Your task to perform on an android device: toggle notification dots Image 0: 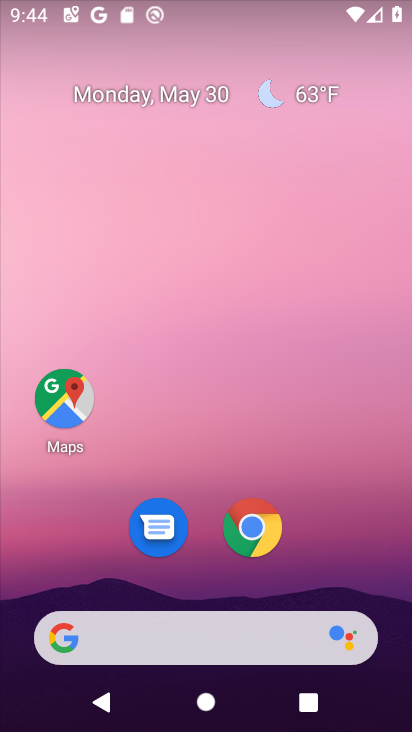
Step 0: drag from (342, 581) to (292, 286)
Your task to perform on an android device: toggle notification dots Image 1: 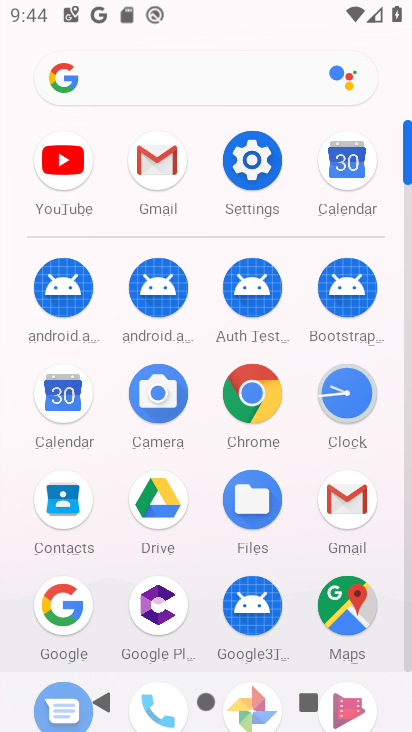
Step 1: click (258, 144)
Your task to perform on an android device: toggle notification dots Image 2: 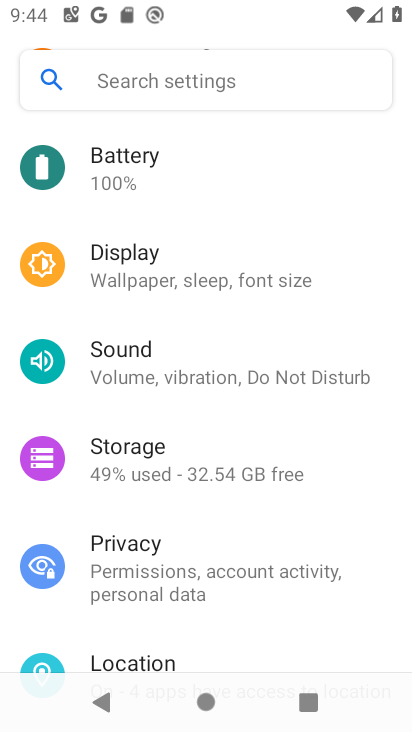
Step 2: click (211, 70)
Your task to perform on an android device: toggle notification dots Image 3: 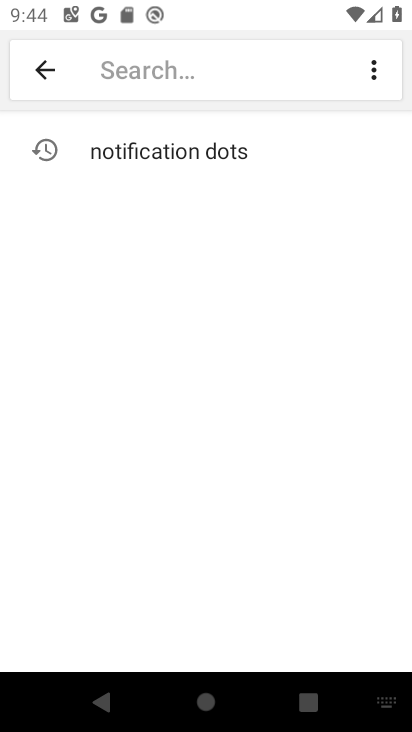
Step 3: click (163, 146)
Your task to perform on an android device: toggle notification dots Image 4: 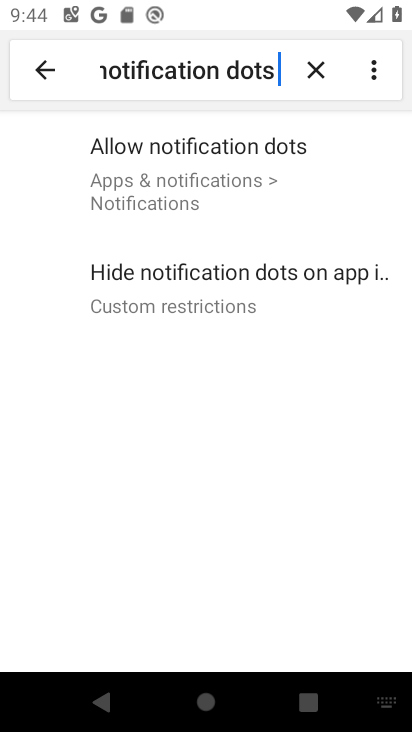
Step 4: click (273, 178)
Your task to perform on an android device: toggle notification dots Image 5: 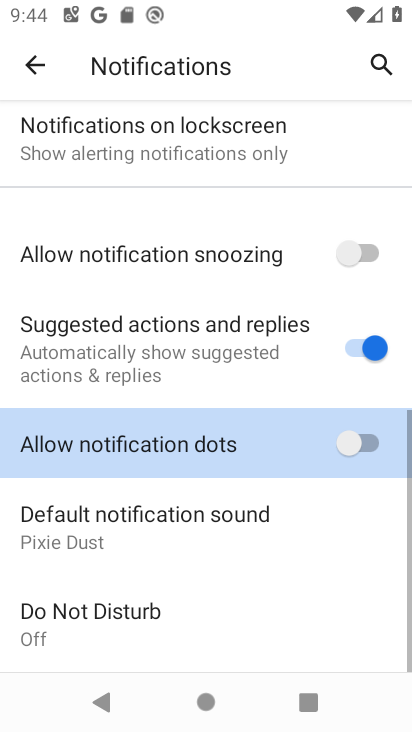
Step 5: click (368, 449)
Your task to perform on an android device: toggle notification dots Image 6: 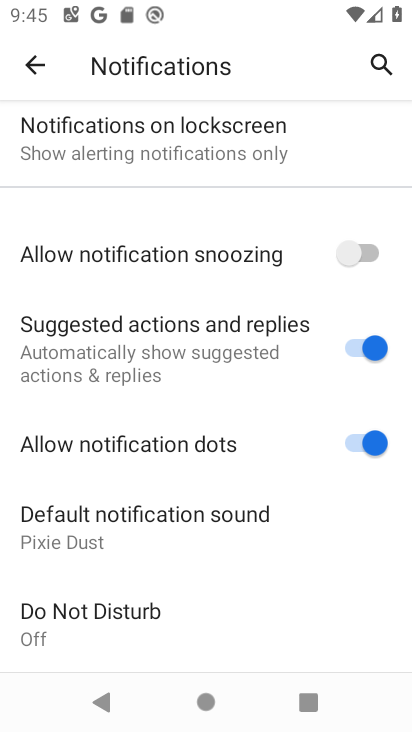
Step 6: drag from (143, 147) to (160, 610)
Your task to perform on an android device: toggle notification dots Image 7: 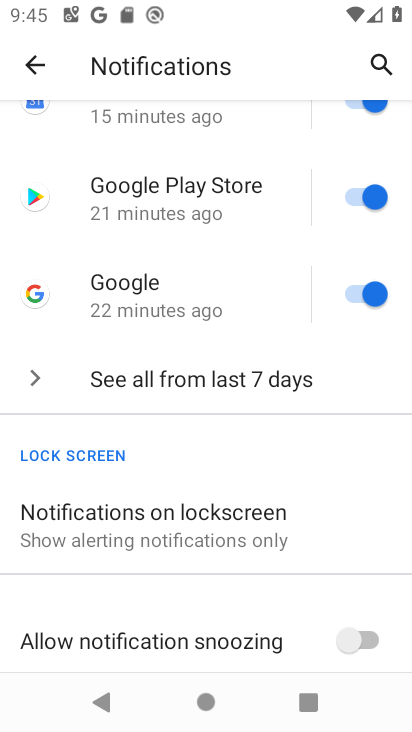
Step 7: drag from (179, 148) to (227, 563)
Your task to perform on an android device: toggle notification dots Image 8: 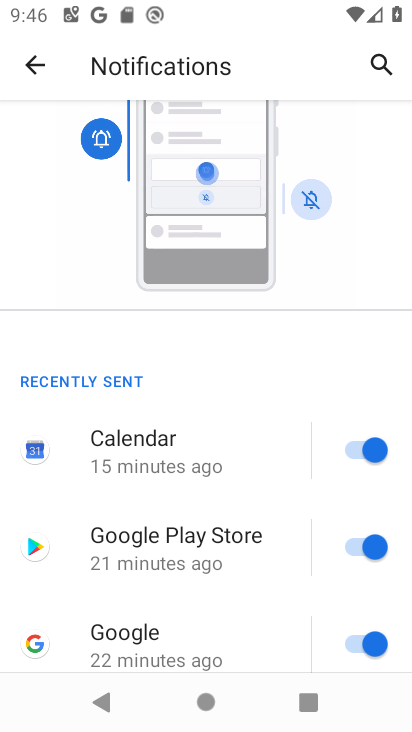
Step 8: drag from (275, 233) to (273, 568)
Your task to perform on an android device: toggle notification dots Image 9: 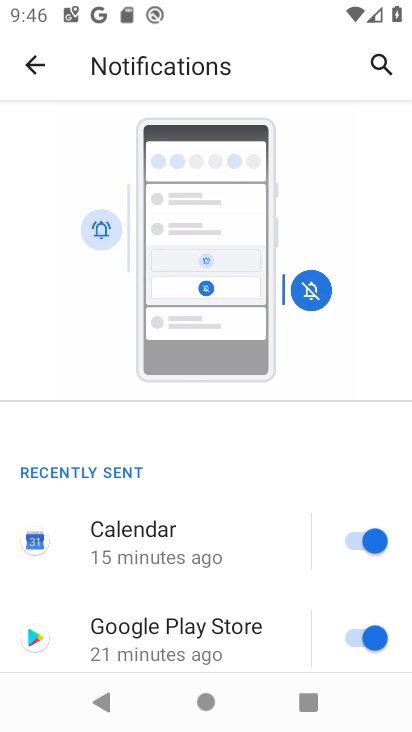
Step 9: click (47, 47)
Your task to perform on an android device: toggle notification dots Image 10: 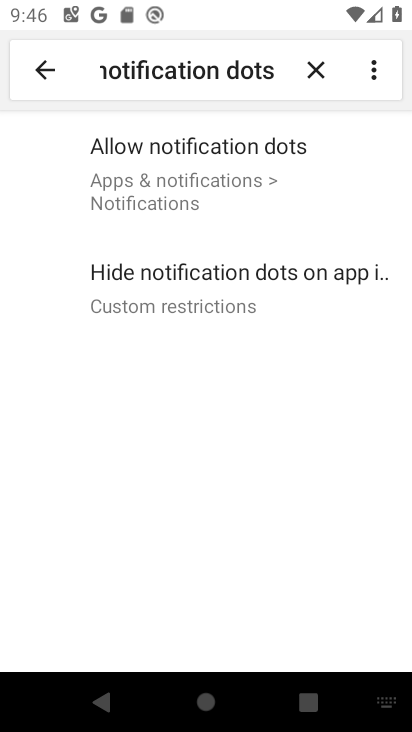
Step 10: click (234, 186)
Your task to perform on an android device: toggle notification dots Image 11: 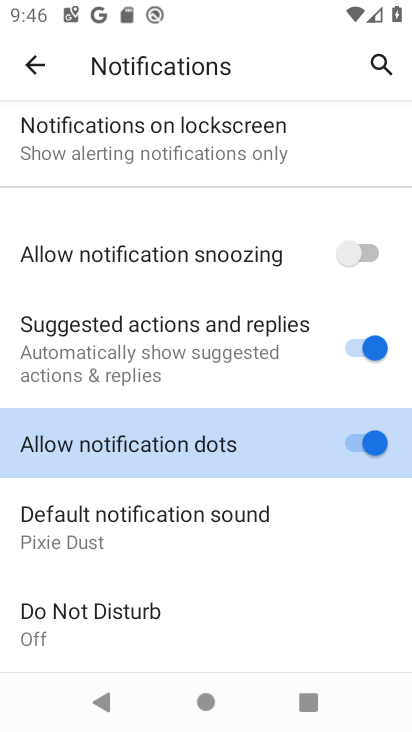
Step 11: task complete